Your task to perform on an android device: Open Yahoo.com Image 0: 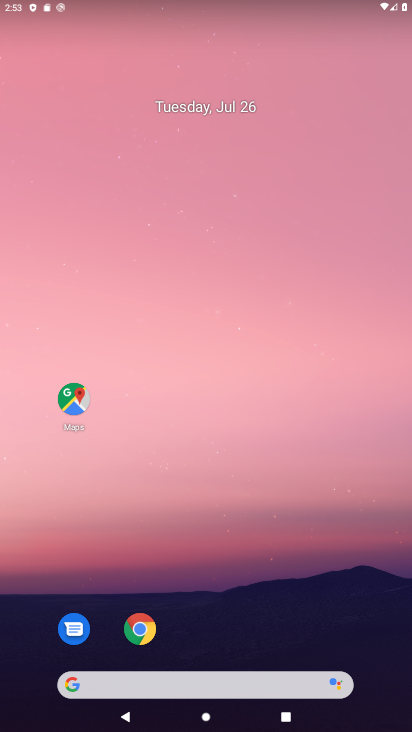
Step 0: click (139, 629)
Your task to perform on an android device: Open Yahoo.com Image 1: 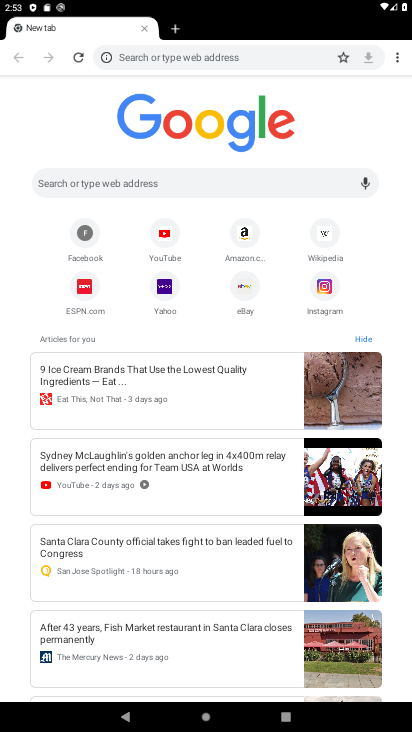
Step 1: click (158, 287)
Your task to perform on an android device: Open Yahoo.com Image 2: 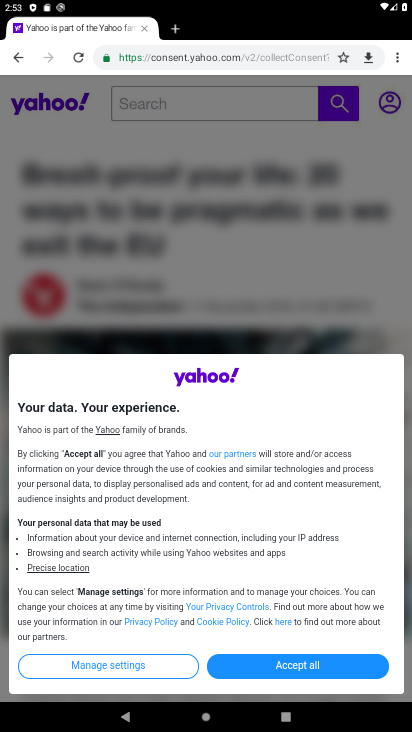
Step 2: task complete